Your task to perform on an android device: Turn on the flashlight Image 0: 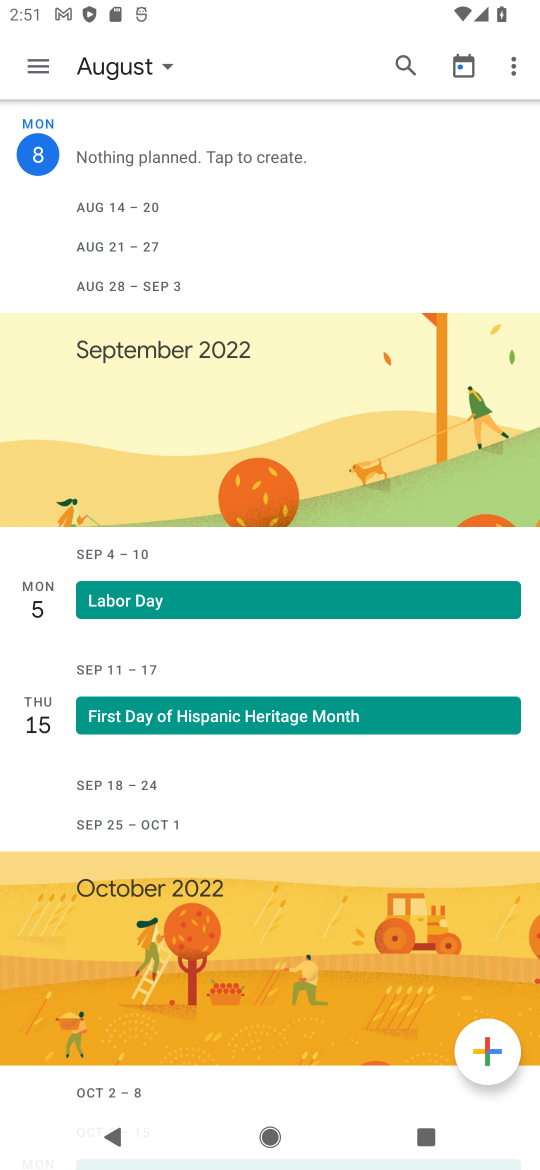
Step 0: drag from (247, 12) to (257, 750)
Your task to perform on an android device: Turn on the flashlight Image 1: 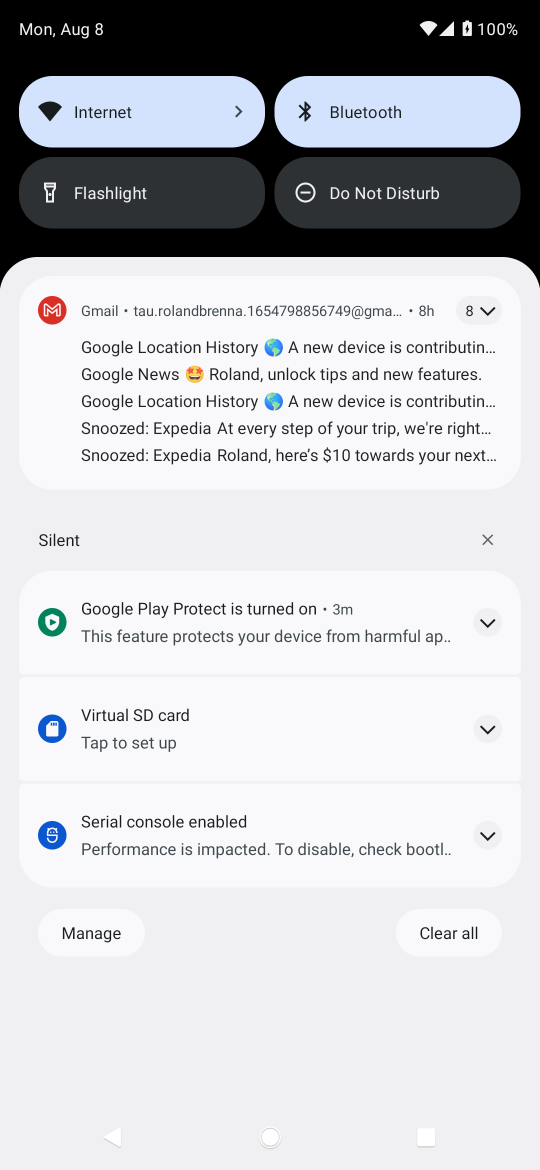
Step 1: task complete